Your task to perform on an android device: change the clock display to show seconds Image 0: 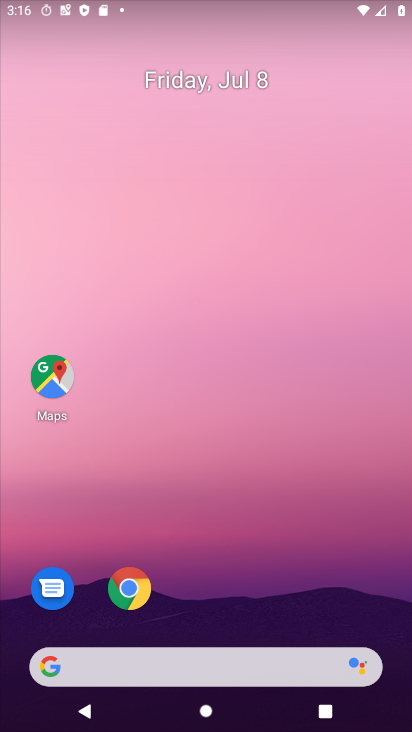
Step 0: drag from (232, 547) to (196, 72)
Your task to perform on an android device: change the clock display to show seconds Image 1: 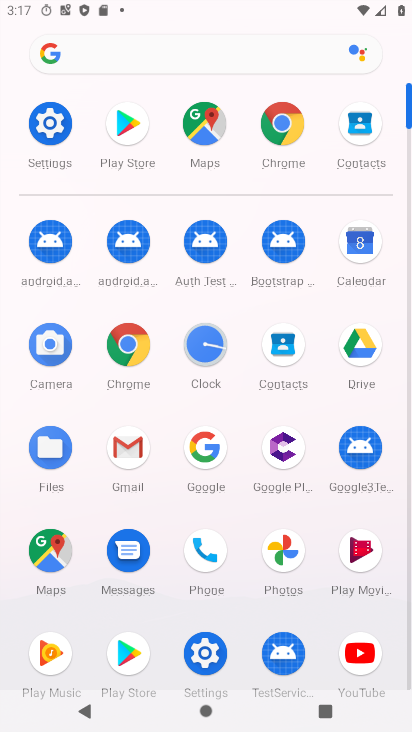
Step 1: click (208, 355)
Your task to perform on an android device: change the clock display to show seconds Image 2: 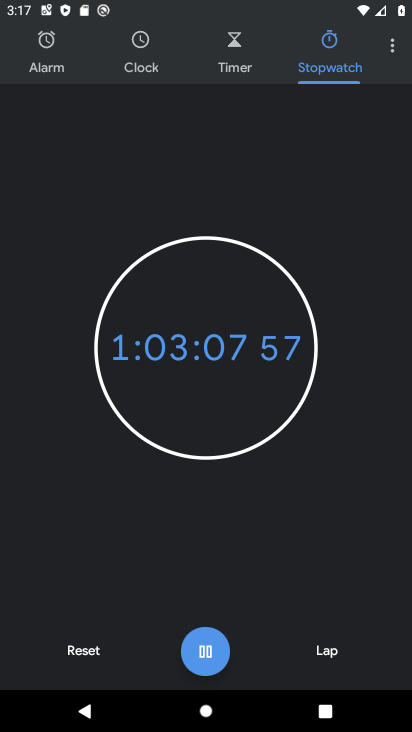
Step 2: click (395, 50)
Your task to perform on an android device: change the clock display to show seconds Image 3: 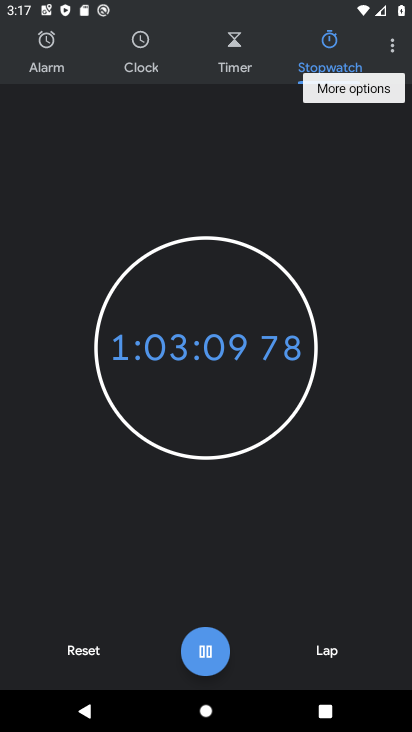
Step 3: click (397, 54)
Your task to perform on an android device: change the clock display to show seconds Image 4: 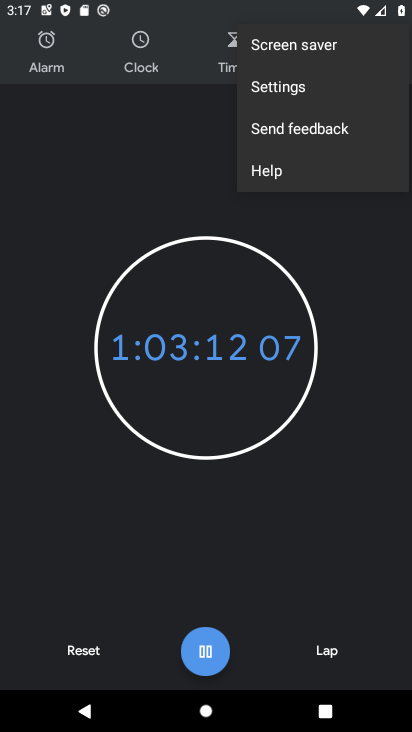
Step 4: click (277, 88)
Your task to perform on an android device: change the clock display to show seconds Image 5: 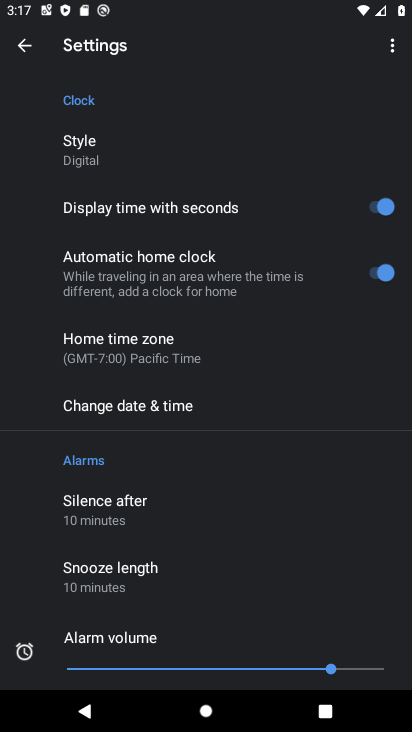
Step 5: task complete